Your task to perform on an android device: Search for sushi restaurants on Maps Image 0: 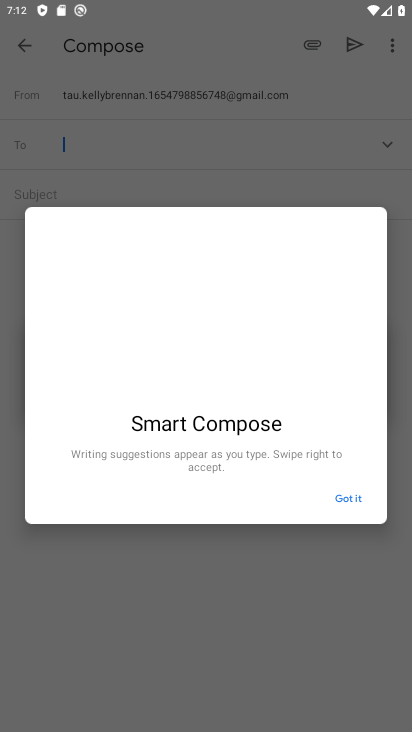
Step 0: press home button
Your task to perform on an android device: Search for sushi restaurants on Maps Image 1: 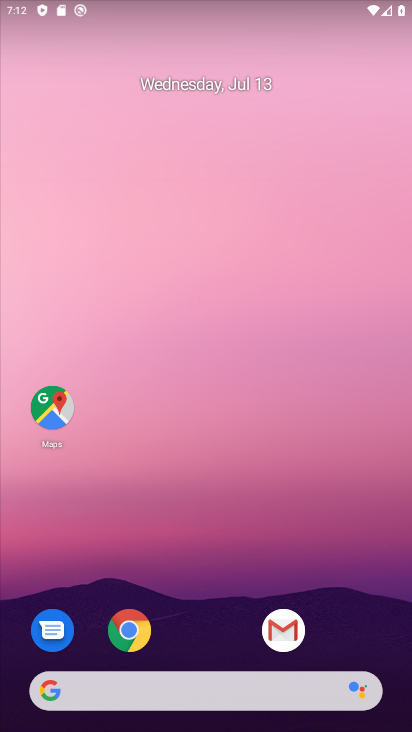
Step 1: click (59, 406)
Your task to perform on an android device: Search for sushi restaurants on Maps Image 2: 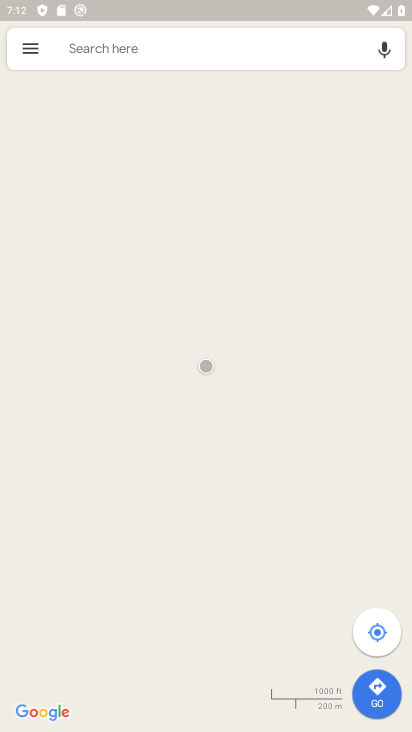
Step 2: click (122, 52)
Your task to perform on an android device: Search for sushi restaurants on Maps Image 3: 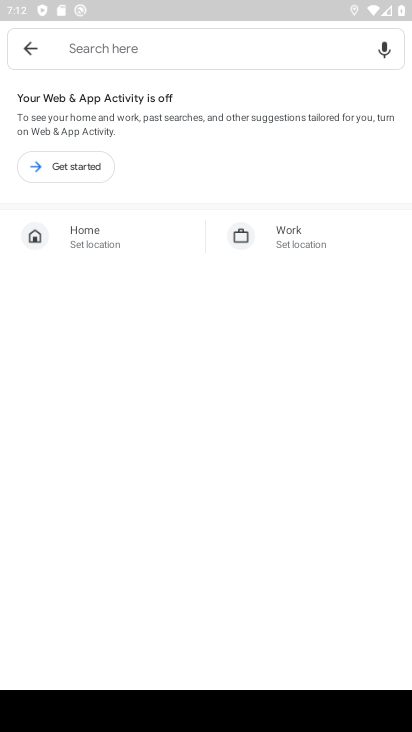
Step 3: click (78, 162)
Your task to perform on an android device: Search for sushi restaurants on Maps Image 4: 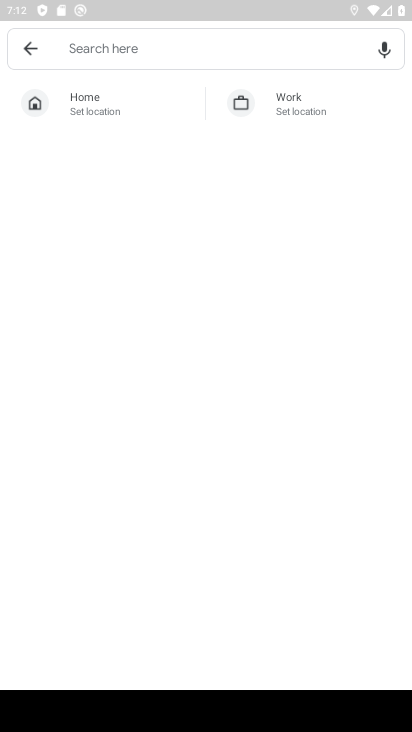
Step 4: click (101, 52)
Your task to perform on an android device: Search for sushi restaurants on Maps Image 5: 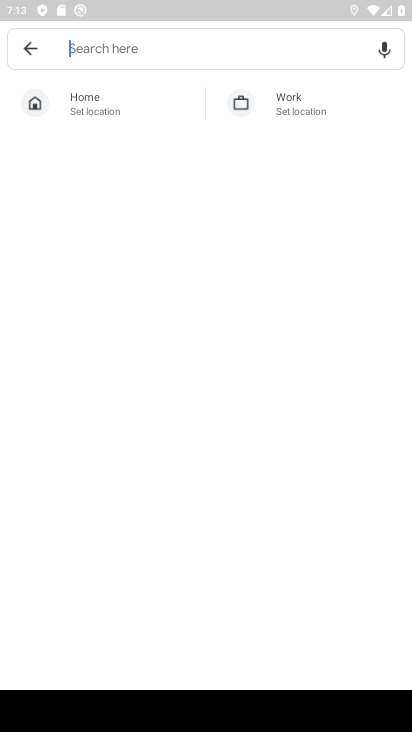
Step 5: drag from (371, 717) to (388, 544)
Your task to perform on an android device: Search for sushi restaurants on Maps Image 6: 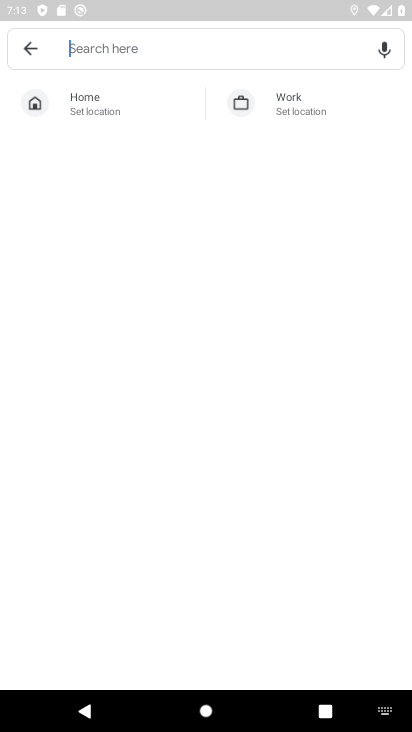
Step 6: click (389, 712)
Your task to perform on an android device: Search for sushi restaurants on Maps Image 7: 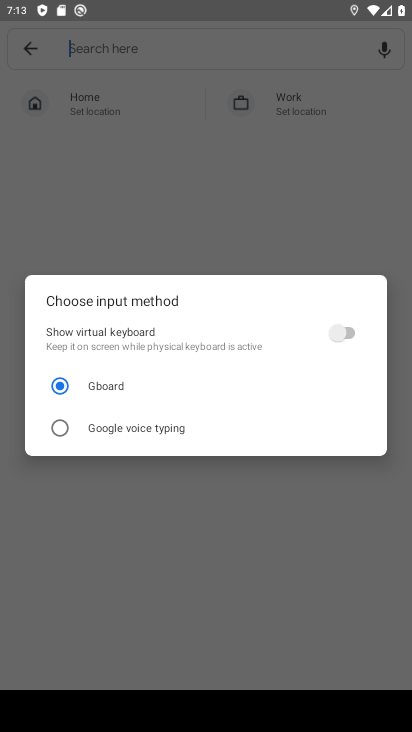
Step 7: click (336, 326)
Your task to perform on an android device: Search for sushi restaurants on Maps Image 8: 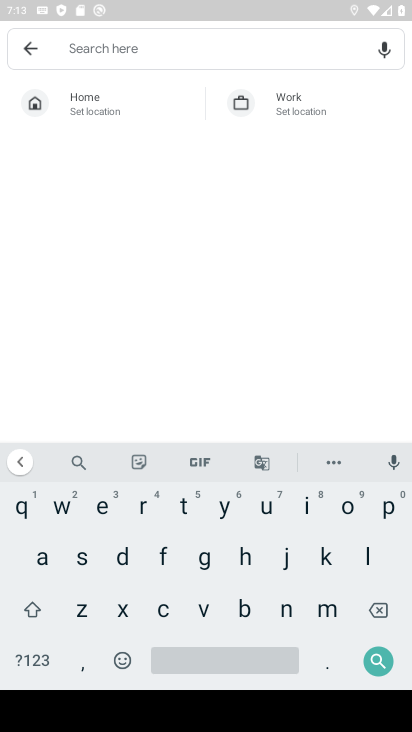
Step 8: click (82, 562)
Your task to perform on an android device: Search for sushi restaurants on Maps Image 9: 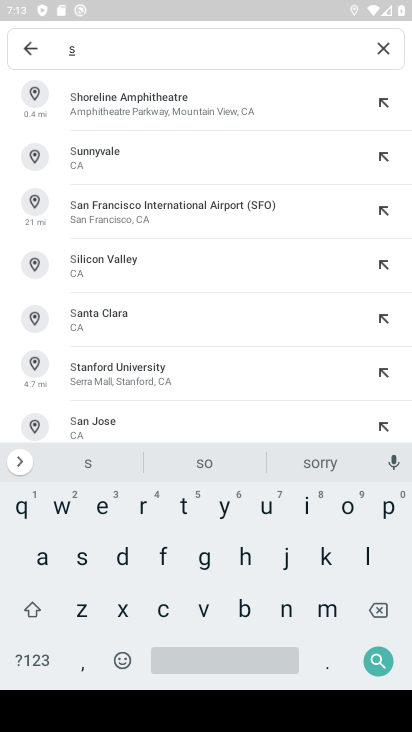
Step 9: click (264, 503)
Your task to perform on an android device: Search for sushi restaurants on Maps Image 10: 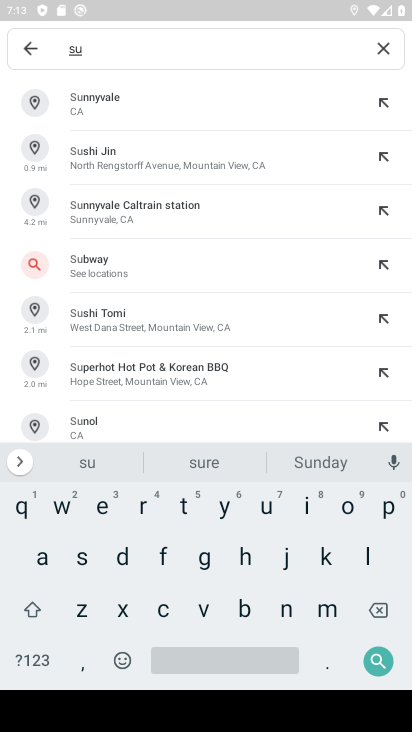
Step 10: click (86, 555)
Your task to perform on an android device: Search for sushi restaurants on Maps Image 11: 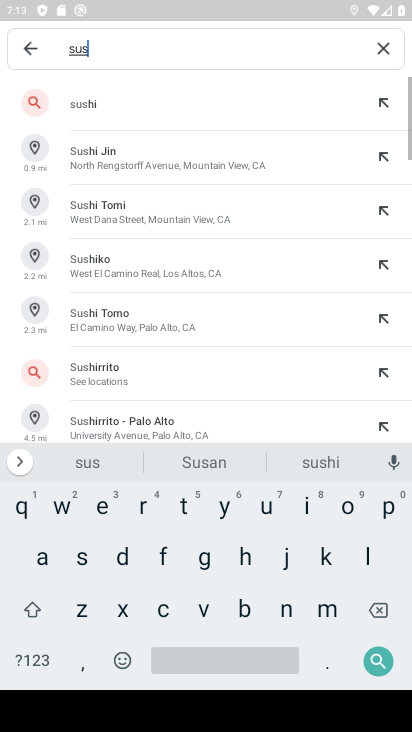
Step 11: click (236, 554)
Your task to perform on an android device: Search for sushi restaurants on Maps Image 12: 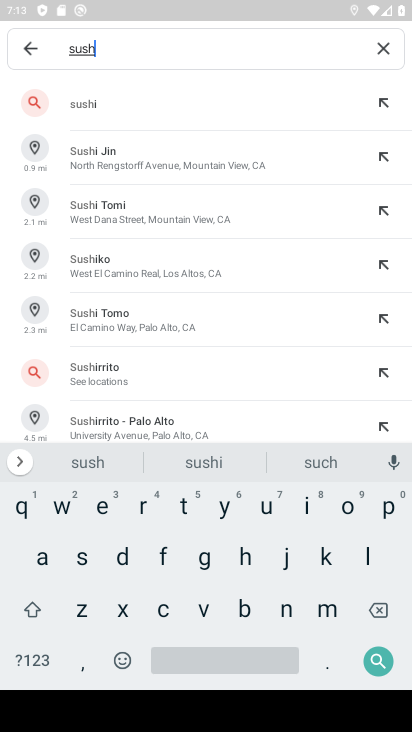
Step 12: click (287, 506)
Your task to perform on an android device: Search for sushi restaurants on Maps Image 13: 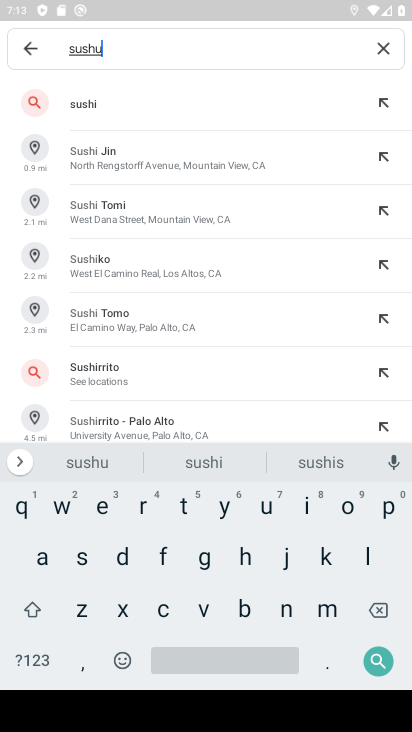
Step 13: click (376, 604)
Your task to perform on an android device: Search for sushi restaurants on Maps Image 14: 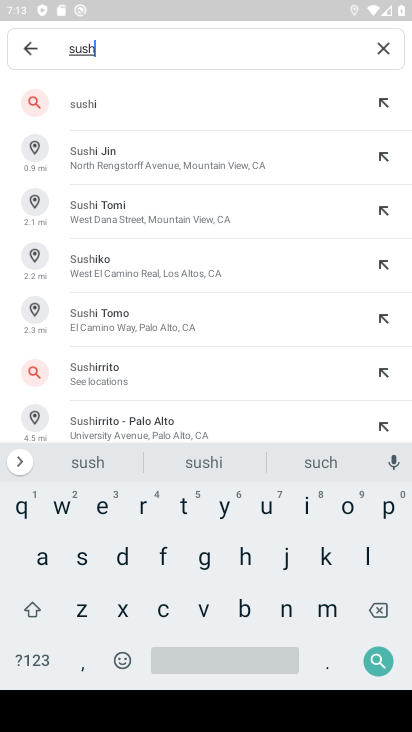
Step 14: click (196, 464)
Your task to perform on an android device: Search for sushi restaurants on Maps Image 15: 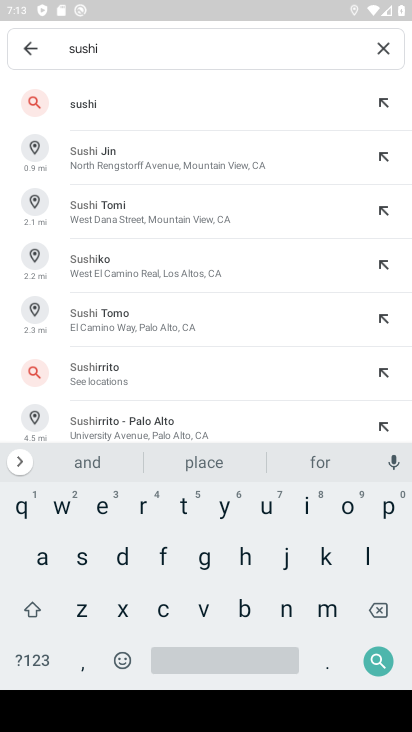
Step 15: click (143, 510)
Your task to perform on an android device: Search for sushi restaurants on Maps Image 16: 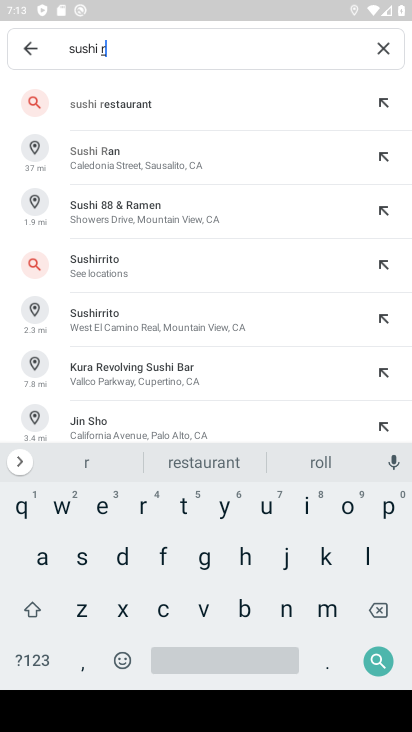
Step 16: click (136, 106)
Your task to perform on an android device: Search for sushi restaurants on Maps Image 17: 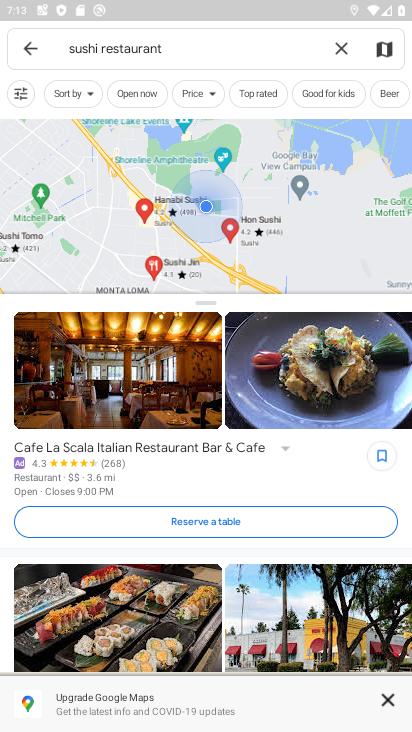
Step 17: task complete